Your task to perform on an android device: Search for Italian restaurants on Maps Image 0: 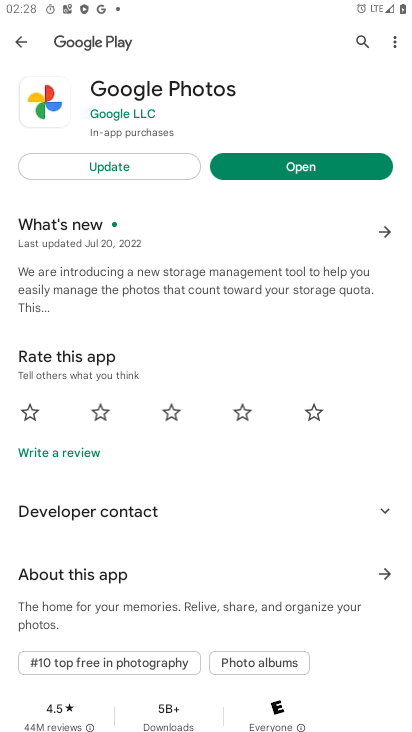
Step 0: press home button
Your task to perform on an android device: Search for Italian restaurants on Maps Image 1: 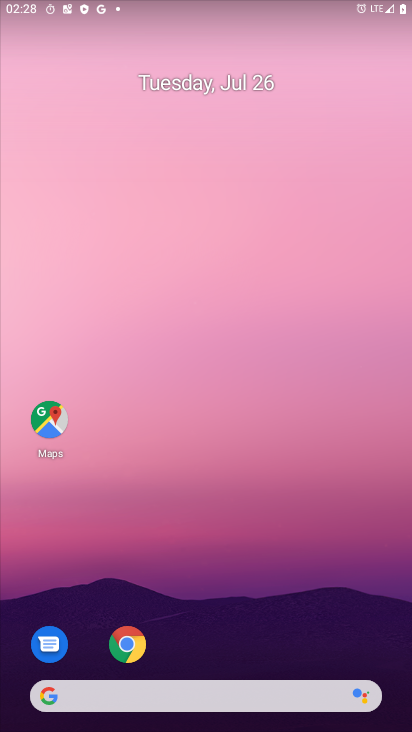
Step 1: click (50, 420)
Your task to perform on an android device: Search for Italian restaurants on Maps Image 2: 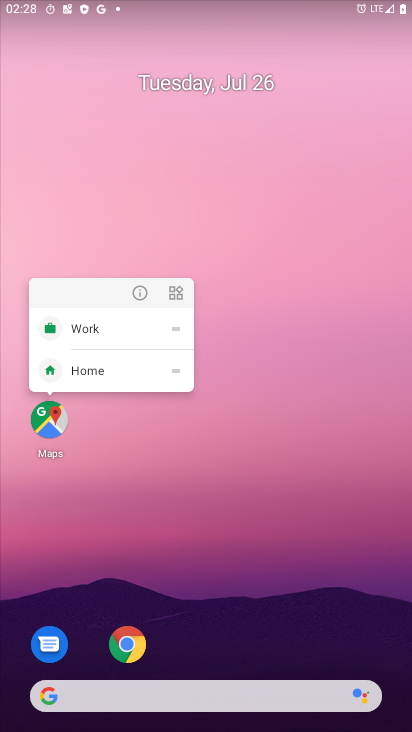
Step 2: click (50, 420)
Your task to perform on an android device: Search for Italian restaurants on Maps Image 3: 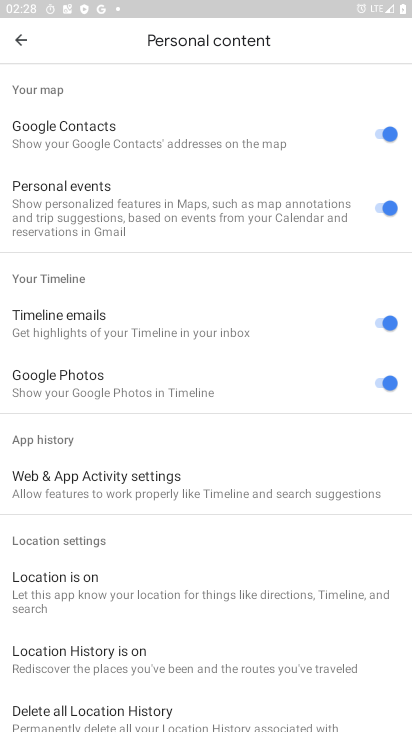
Step 3: click (19, 44)
Your task to perform on an android device: Search for Italian restaurants on Maps Image 4: 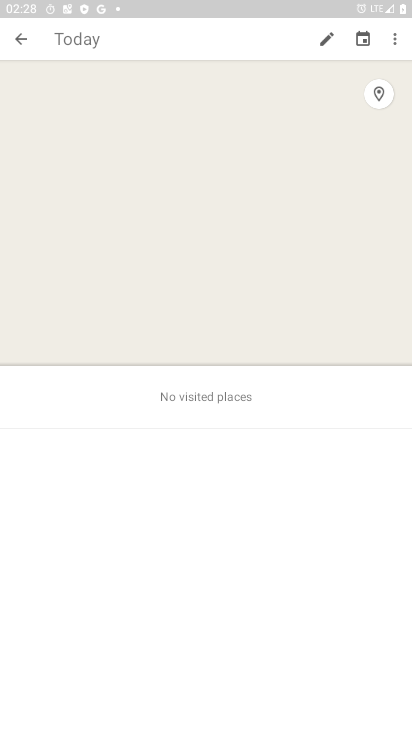
Step 4: click (19, 44)
Your task to perform on an android device: Search for Italian restaurants on Maps Image 5: 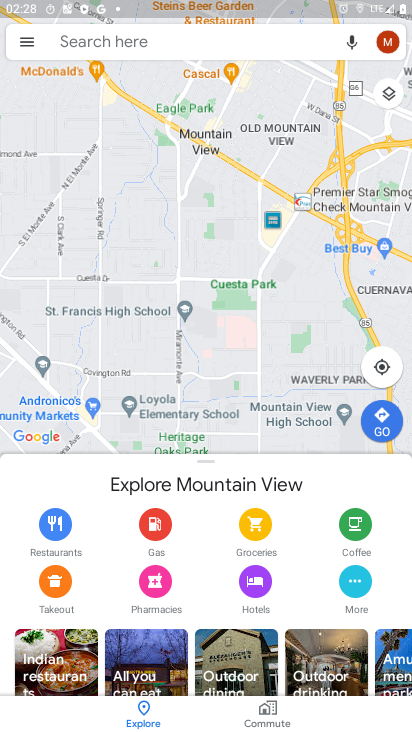
Step 5: click (79, 47)
Your task to perform on an android device: Search for Italian restaurants on Maps Image 6: 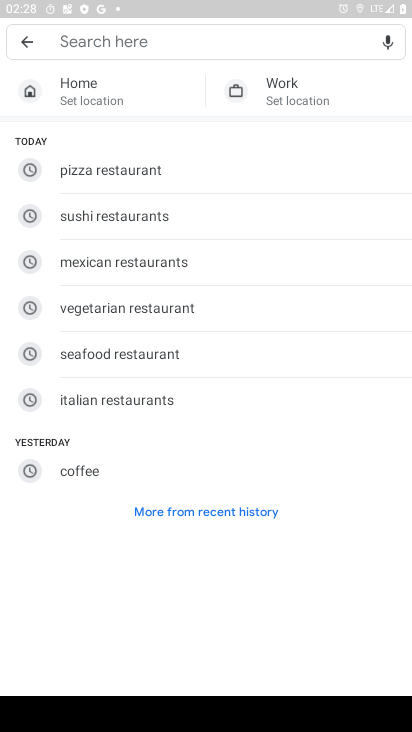
Step 6: type " Italian restaurants"
Your task to perform on an android device: Search for Italian restaurants on Maps Image 7: 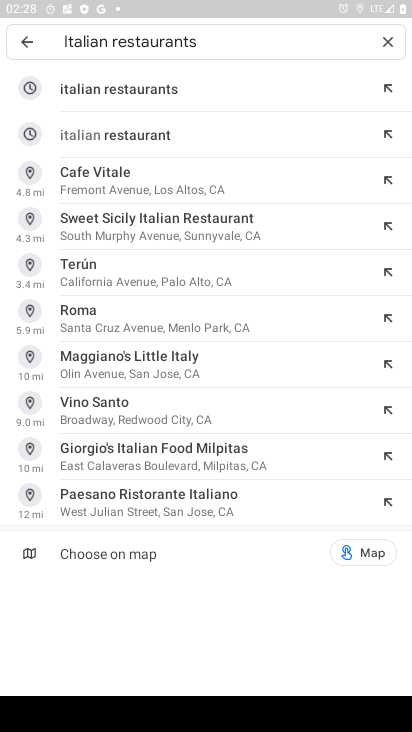
Step 7: click (102, 94)
Your task to perform on an android device: Search for Italian restaurants on Maps Image 8: 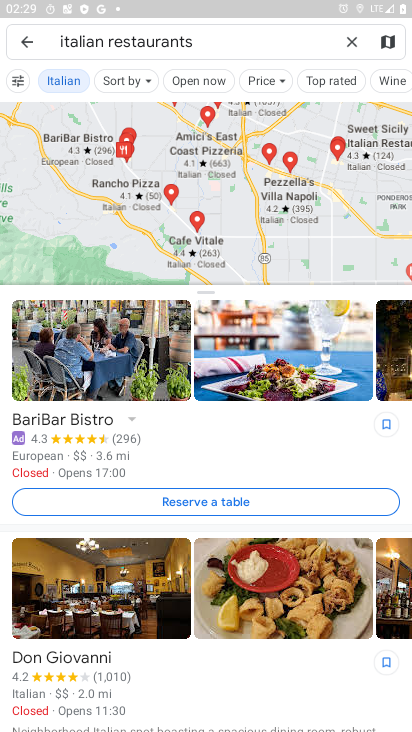
Step 8: task complete